Your task to perform on an android device: Go to internet settings Image 0: 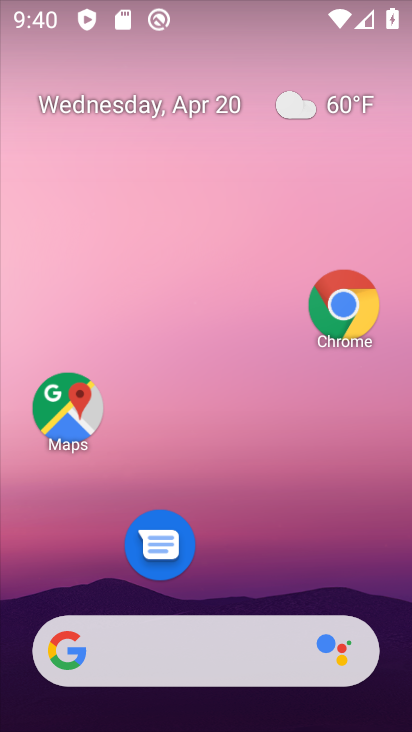
Step 0: drag from (265, 589) to (294, 124)
Your task to perform on an android device: Go to internet settings Image 1: 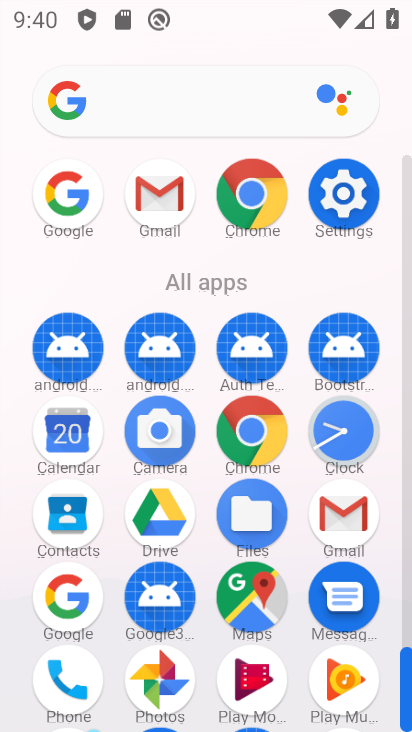
Step 1: click (357, 216)
Your task to perform on an android device: Go to internet settings Image 2: 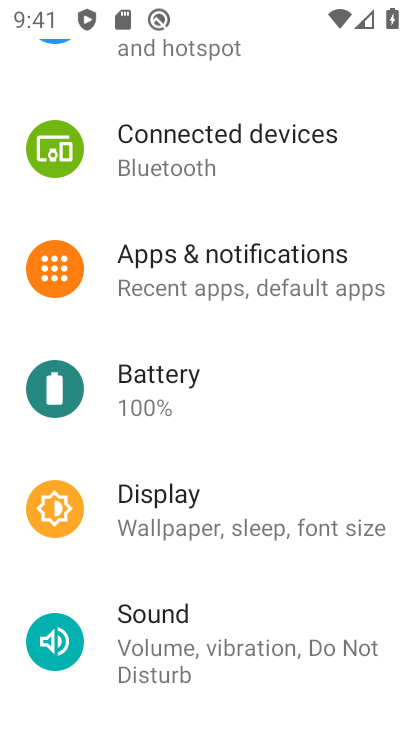
Step 2: drag from (178, 193) to (135, 639)
Your task to perform on an android device: Go to internet settings Image 3: 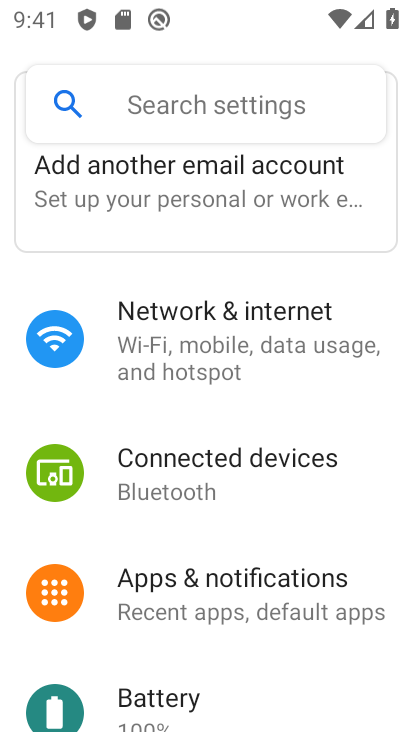
Step 3: click (256, 346)
Your task to perform on an android device: Go to internet settings Image 4: 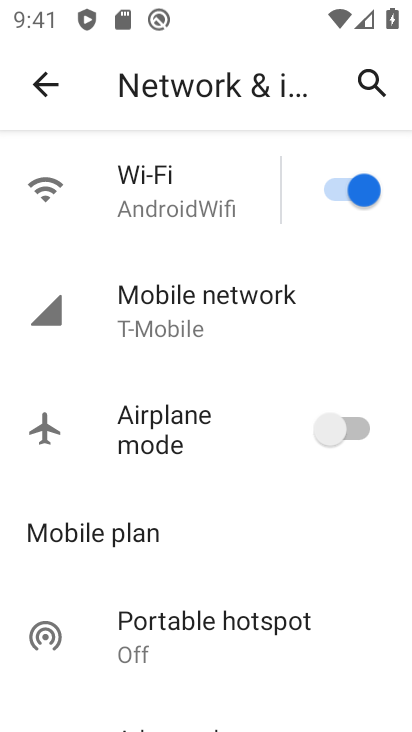
Step 4: click (256, 313)
Your task to perform on an android device: Go to internet settings Image 5: 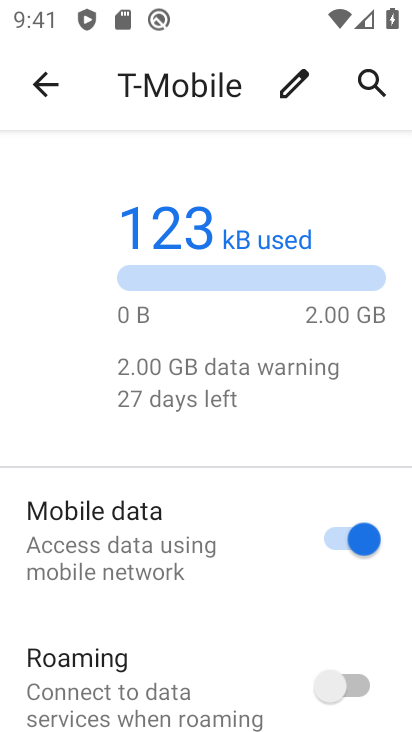
Step 5: click (237, 482)
Your task to perform on an android device: Go to internet settings Image 6: 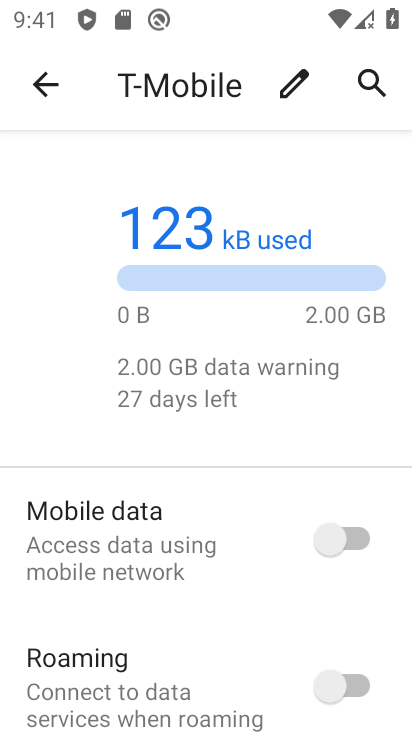
Step 6: task complete